Your task to perform on an android device: check google app version Image 0: 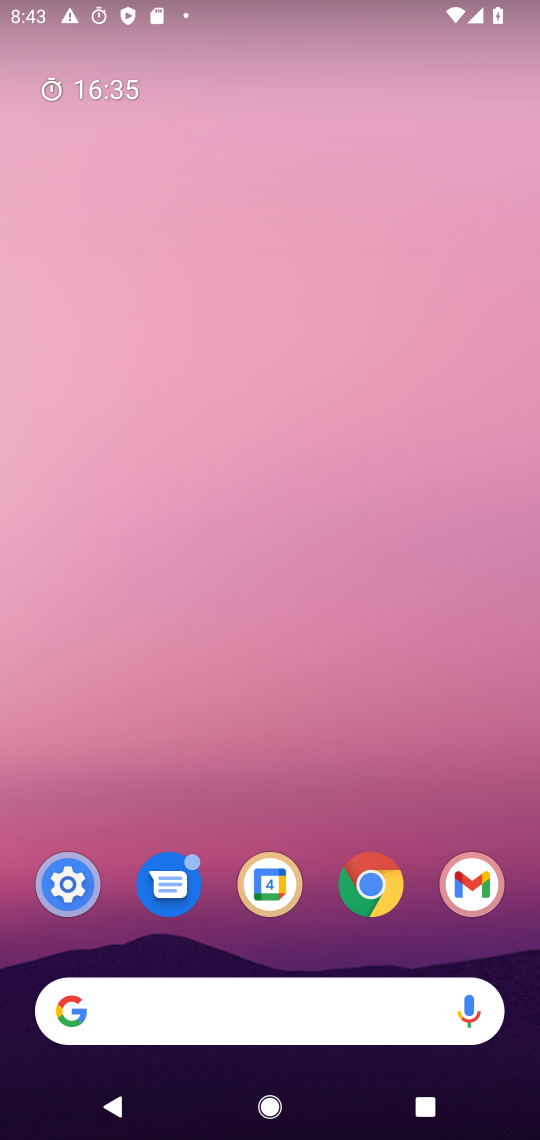
Step 0: press home button
Your task to perform on an android device: check google app version Image 1: 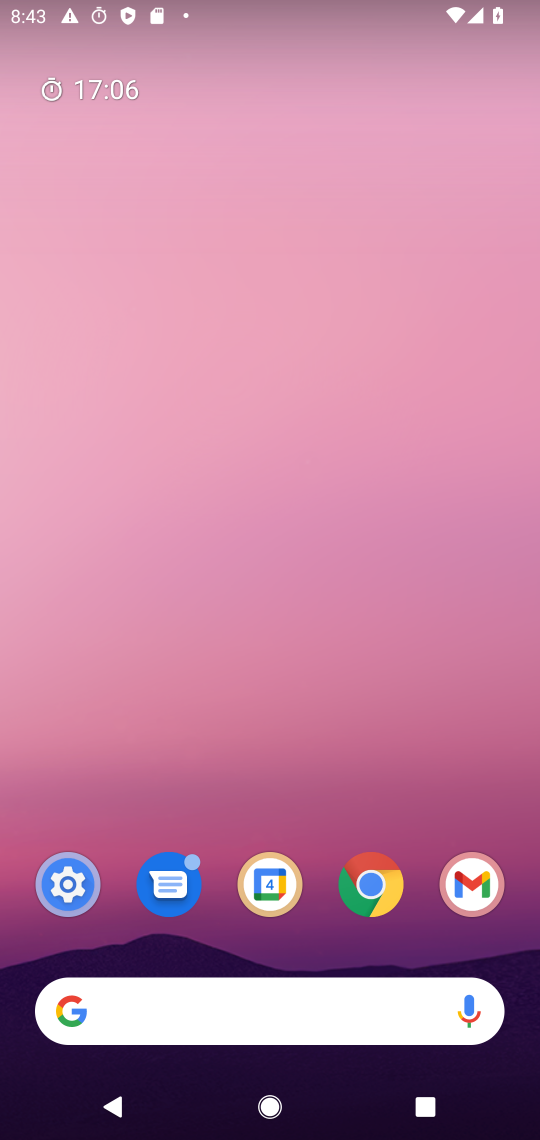
Step 1: drag from (340, 764) to (515, 106)
Your task to perform on an android device: check google app version Image 2: 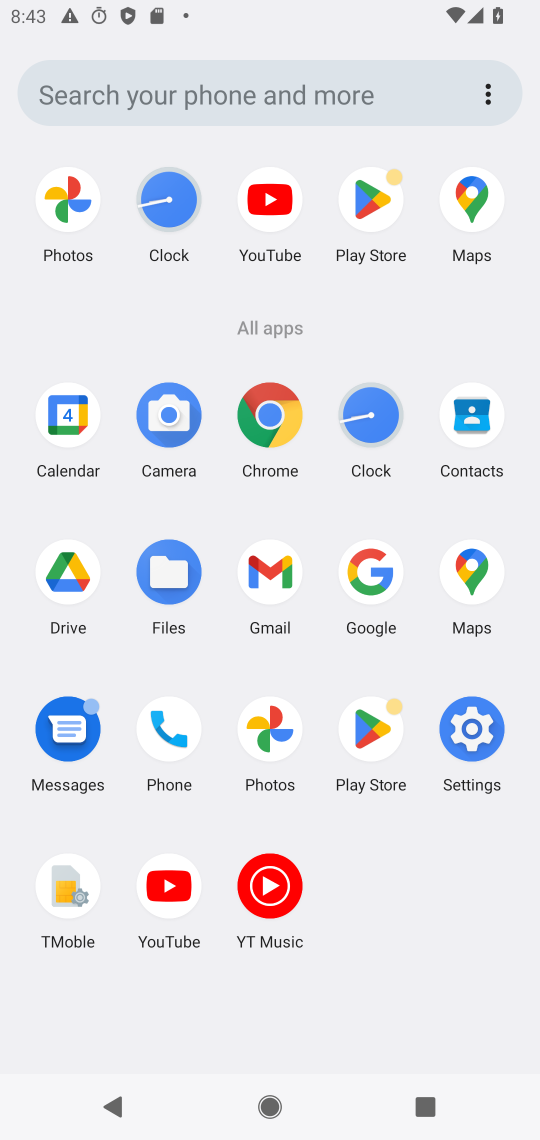
Step 2: click (380, 576)
Your task to perform on an android device: check google app version Image 3: 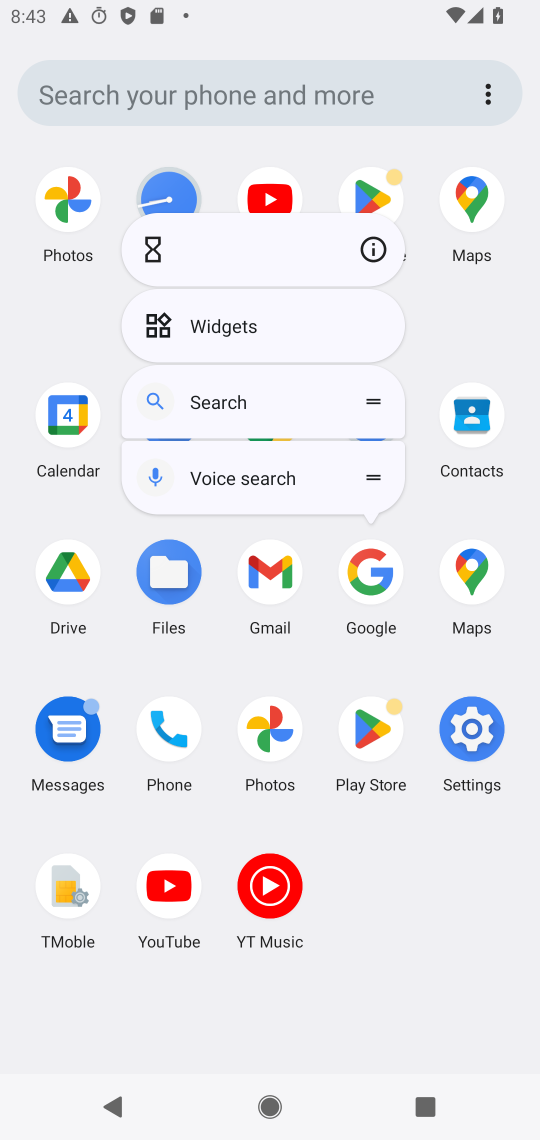
Step 3: click (383, 249)
Your task to perform on an android device: check google app version Image 4: 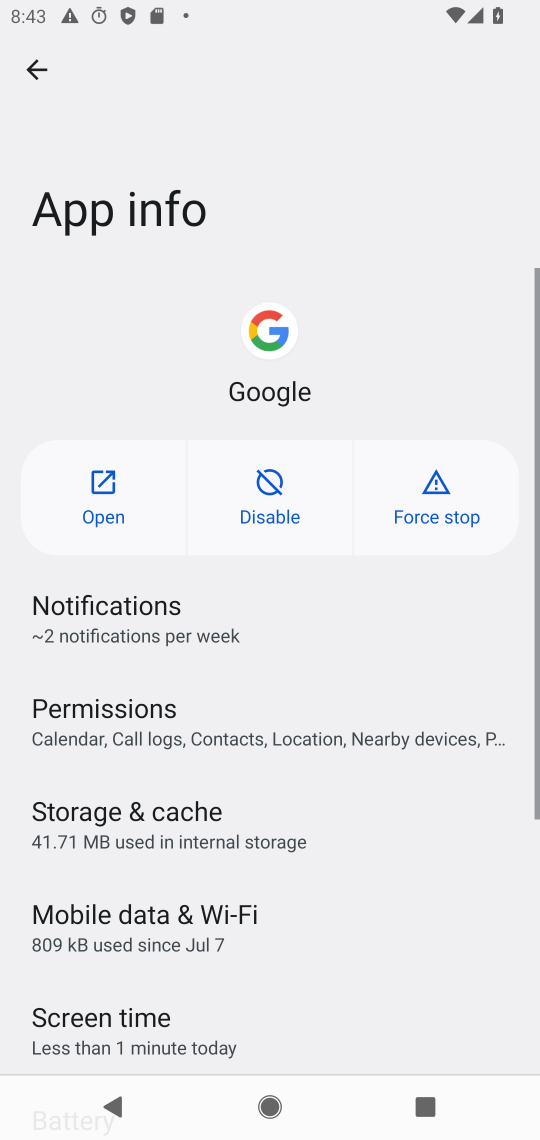
Step 4: task complete